Your task to perform on an android device: Open CNN.com Image 0: 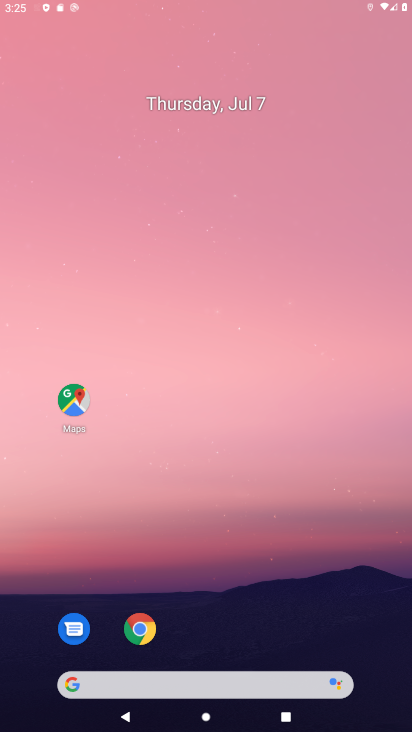
Step 0: press home button
Your task to perform on an android device: Open CNN.com Image 1: 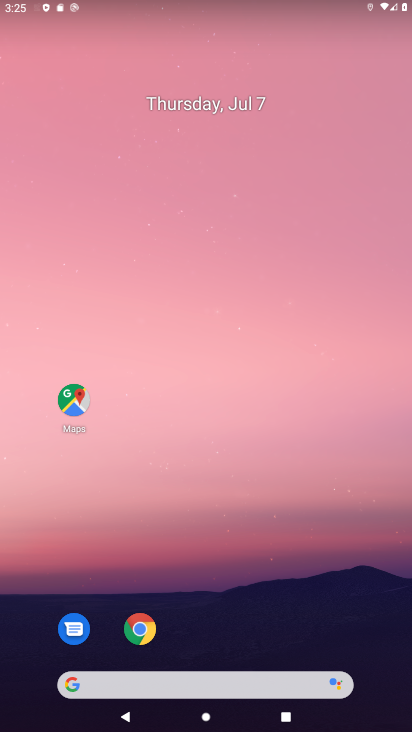
Step 1: click (76, 688)
Your task to perform on an android device: Open CNN.com Image 2: 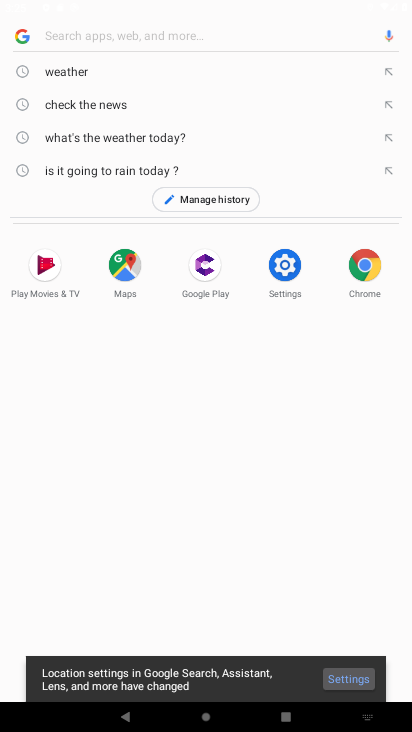
Step 2: type "CNN.com"
Your task to perform on an android device: Open CNN.com Image 3: 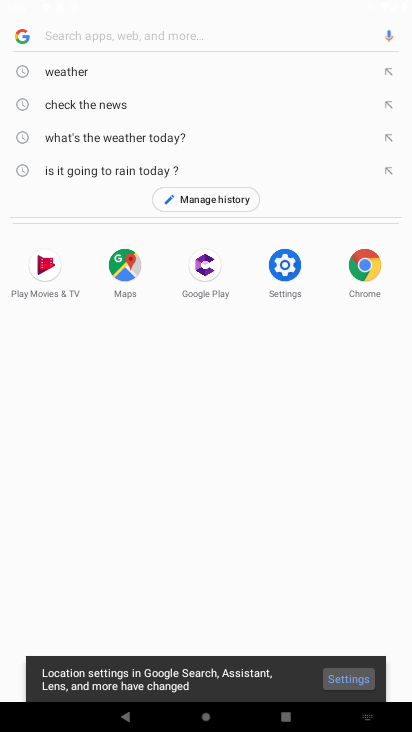
Step 3: click (125, 27)
Your task to perform on an android device: Open CNN.com Image 4: 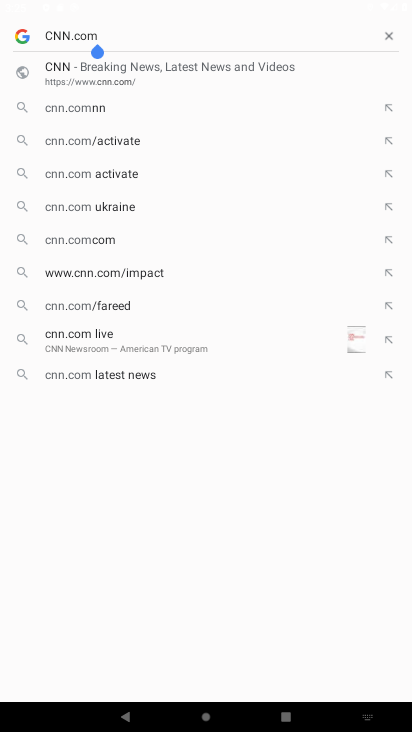
Step 4: click (68, 69)
Your task to perform on an android device: Open CNN.com Image 5: 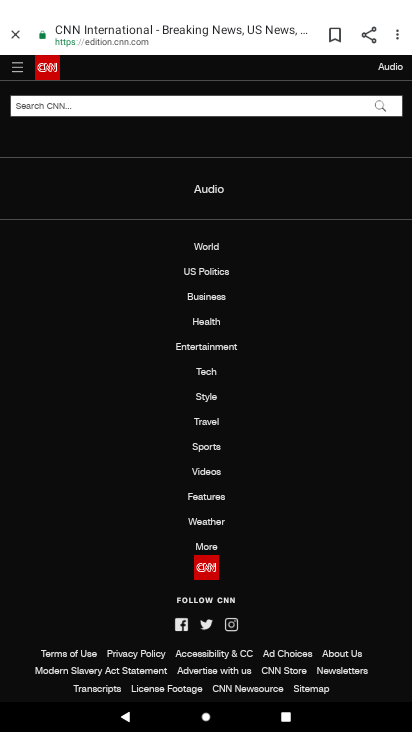
Step 5: task complete